Your task to perform on an android device: move an email to a new category in the gmail app Image 0: 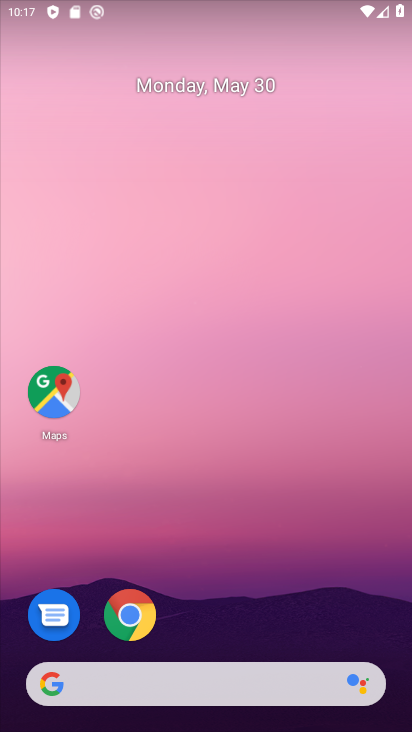
Step 0: drag from (233, 608) to (229, 13)
Your task to perform on an android device: move an email to a new category in the gmail app Image 1: 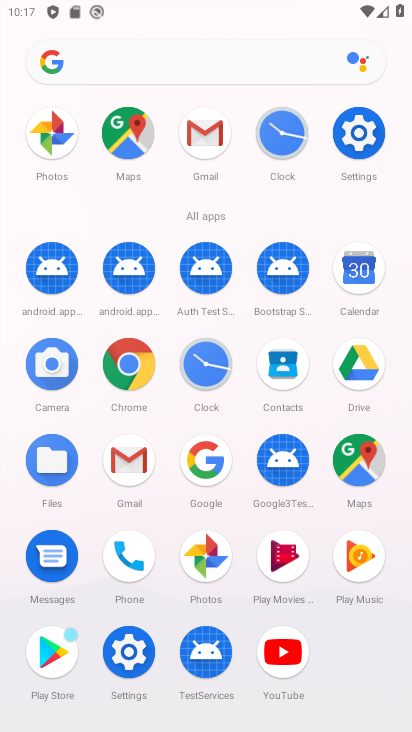
Step 1: click (125, 456)
Your task to perform on an android device: move an email to a new category in the gmail app Image 2: 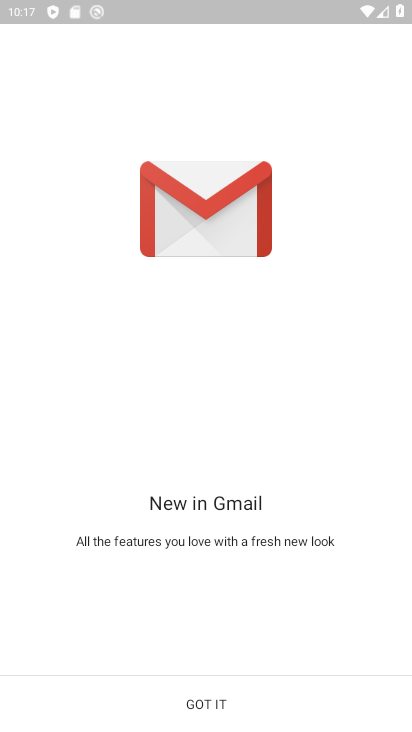
Step 2: click (210, 693)
Your task to perform on an android device: move an email to a new category in the gmail app Image 3: 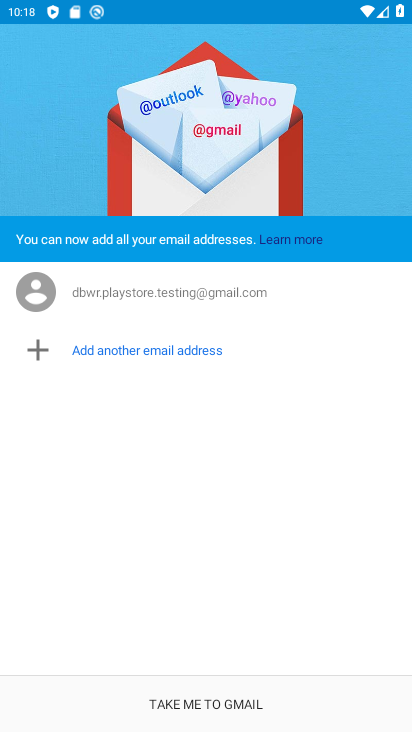
Step 3: click (220, 696)
Your task to perform on an android device: move an email to a new category in the gmail app Image 4: 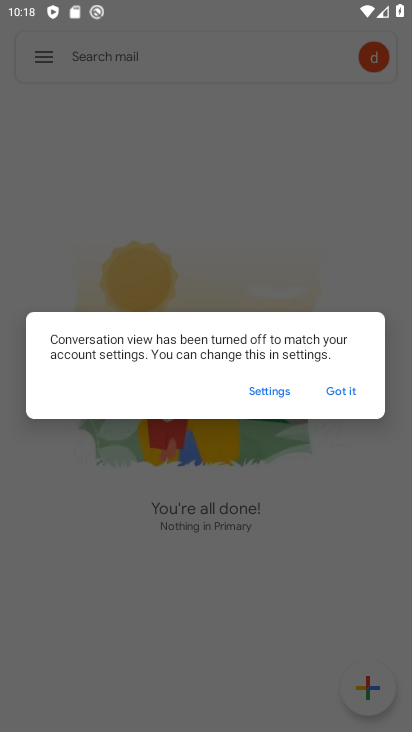
Step 4: click (334, 387)
Your task to perform on an android device: move an email to a new category in the gmail app Image 5: 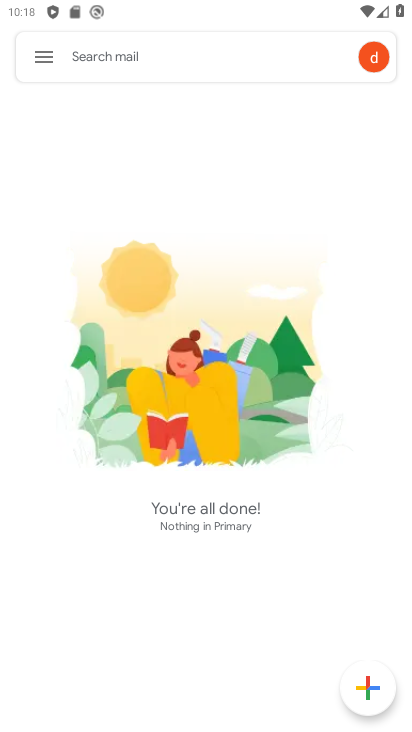
Step 5: click (41, 48)
Your task to perform on an android device: move an email to a new category in the gmail app Image 6: 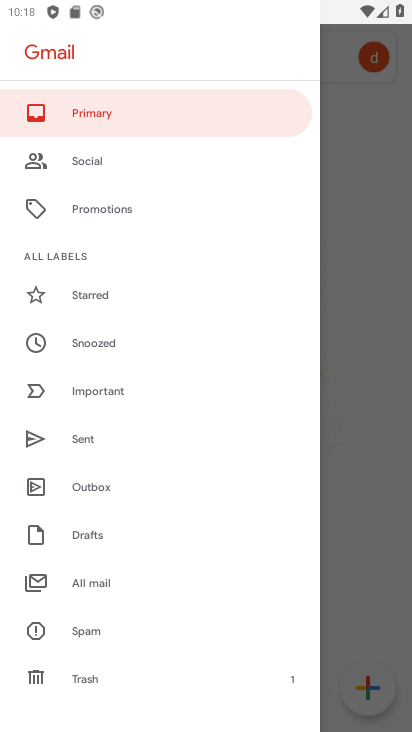
Step 6: click (104, 289)
Your task to perform on an android device: move an email to a new category in the gmail app Image 7: 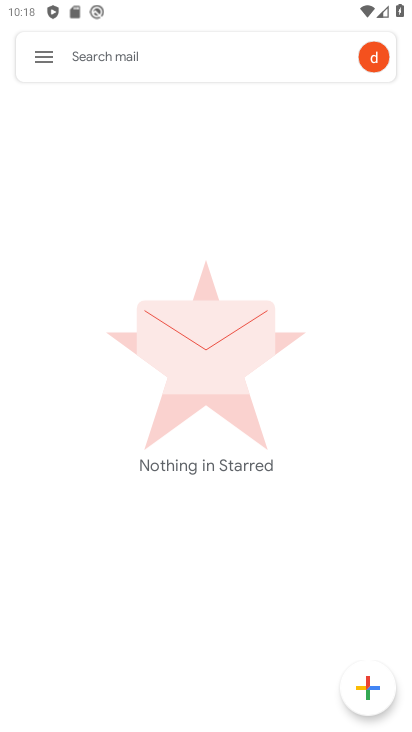
Step 7: click (30, 55)
Your task to perform on an android device: move an email to a new category in the gmail app Image 8: 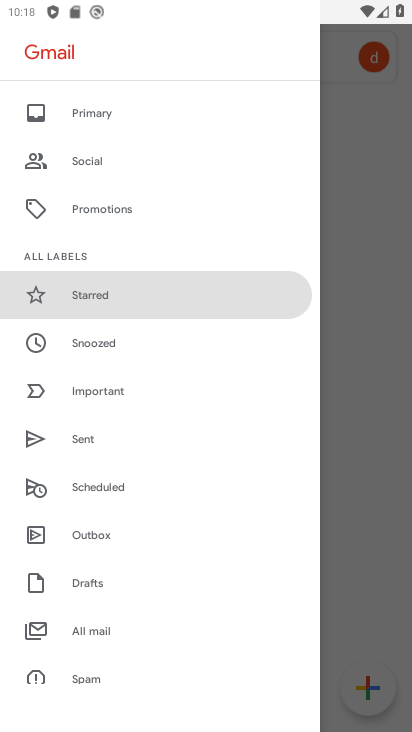
Step 8: click (98, 633)
Your task to perform on an android device: move an email to a new category in the gmail app Image 9: 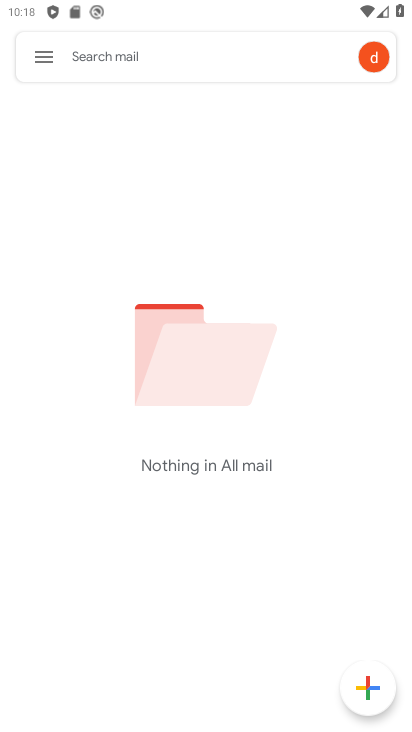
Step 9: task complete